Your task to perform on an android device: Open network settings Image 0: 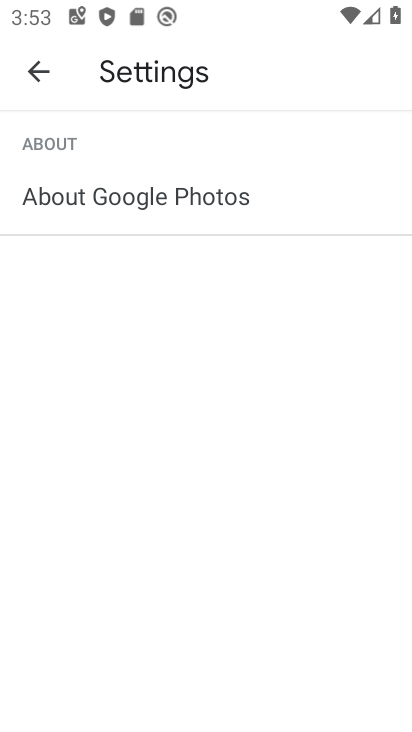
Step 0: press home button
Your task to perform on an android device: Open network settings Image 1: 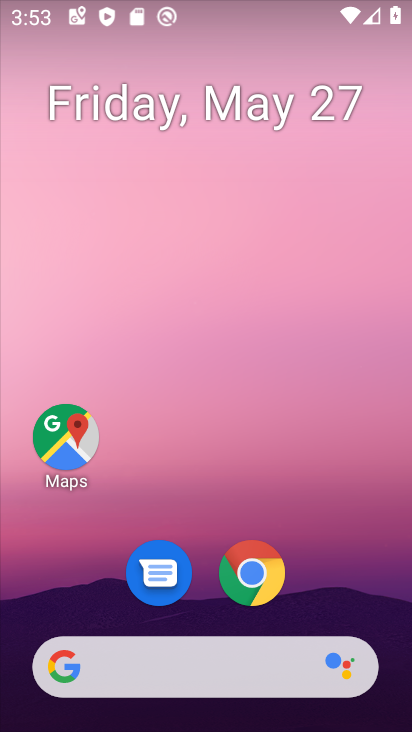
Step 1: drag from (381, 610) to (386, 279)
Your task to perform on an android device: Open network settings Image 2: 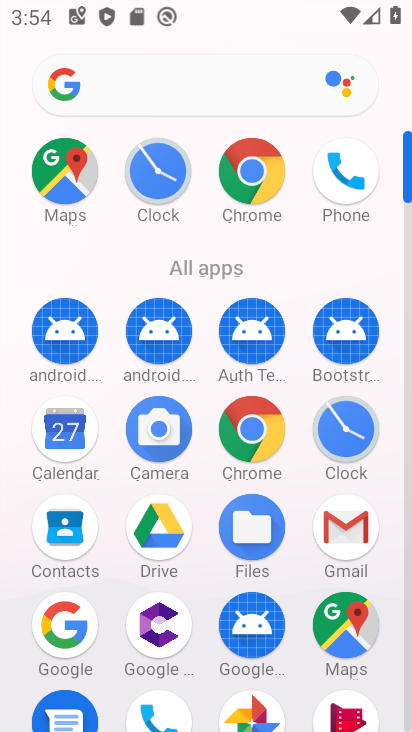
Step 2: drag from (387, 504) to (392, 255)
Your task to perform on an android device: Open network settings Image 3: 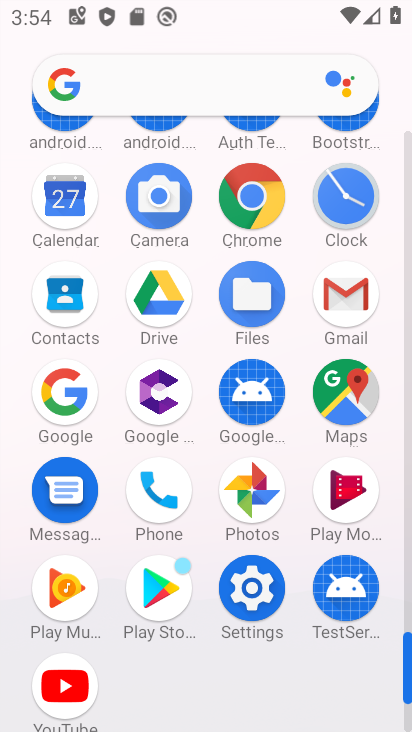
Step 3: click (260, 580)
Your task to perform on an android device: Open network settings Image 4: 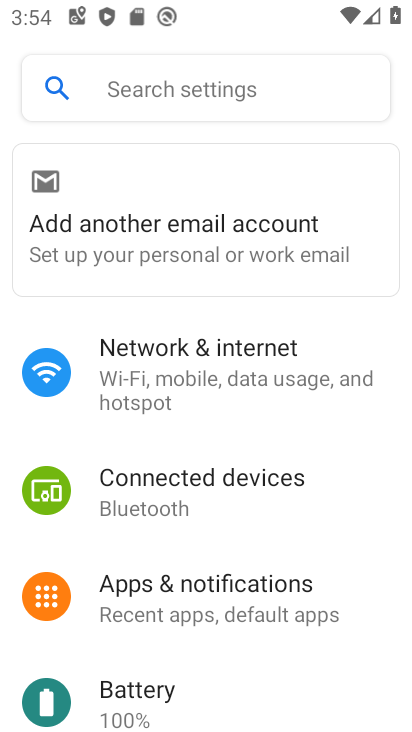
Step 4: drag from (332, 646) to (346, 546)
Your task to perform on an android device: Open network settings Image 5: 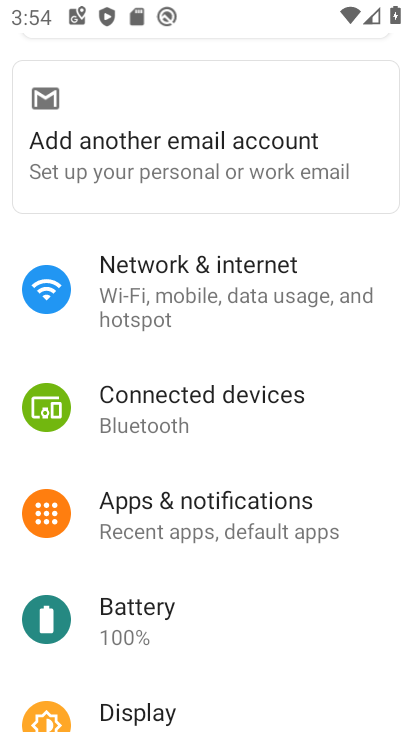
Step 5: click (268, 292)
Your task to perform on an android device: Open network settings Image 6: 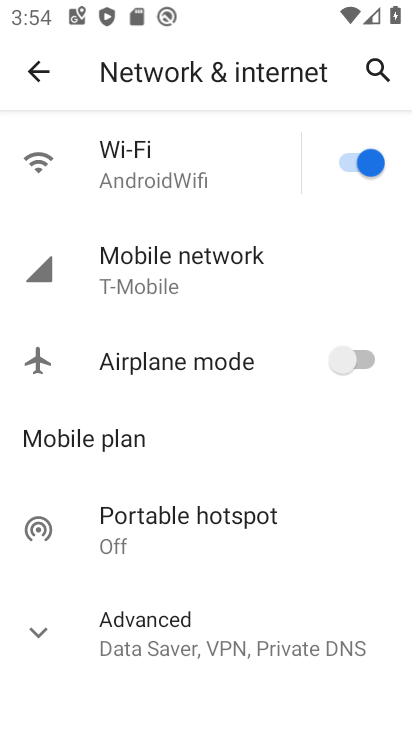
Step 6: task complete